Your task to perform on an android device: Open Google Chrome Image 0: 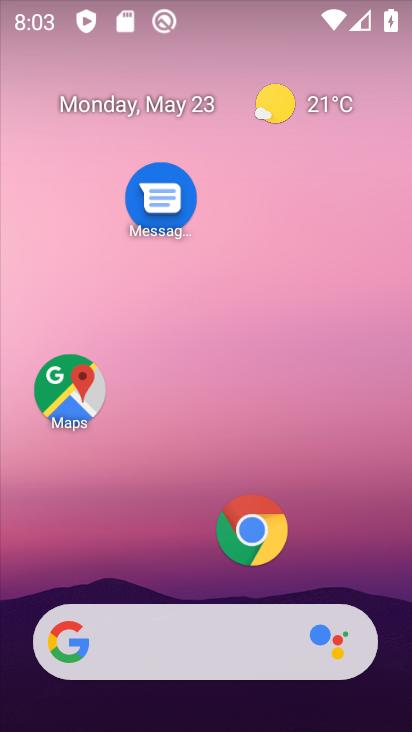
Step 0: click (250, 532)
Your task to perform on an android device: Open Google Chrome Image 1: 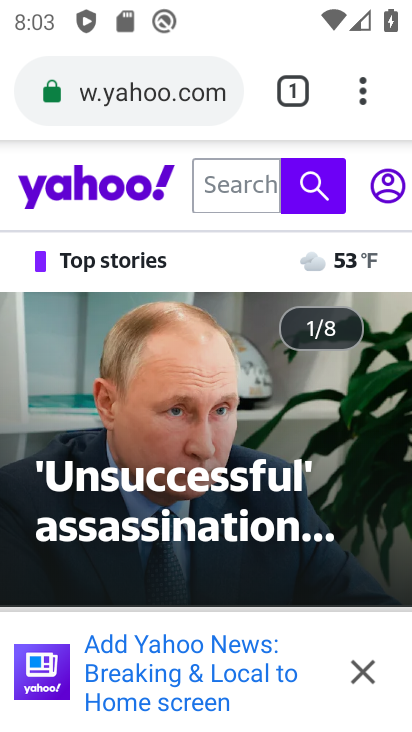
Step 1: task complete